Your task to perform on an android device: Go to sound settings Image 0: 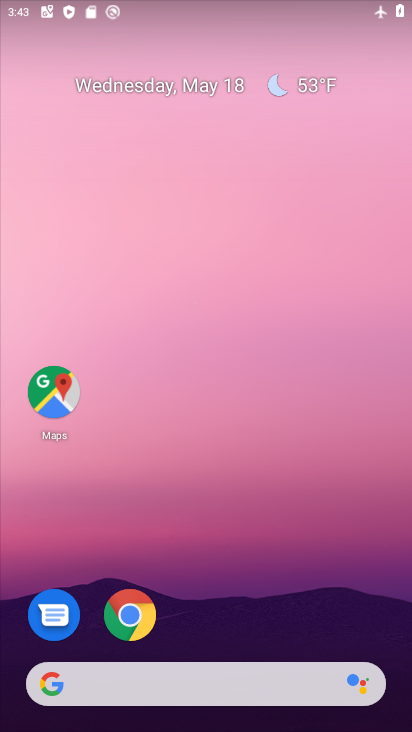
Step 0: drag from (283, 574) to (279, 103)
Your task to perform on an android device: Go to sound settings Image 1: 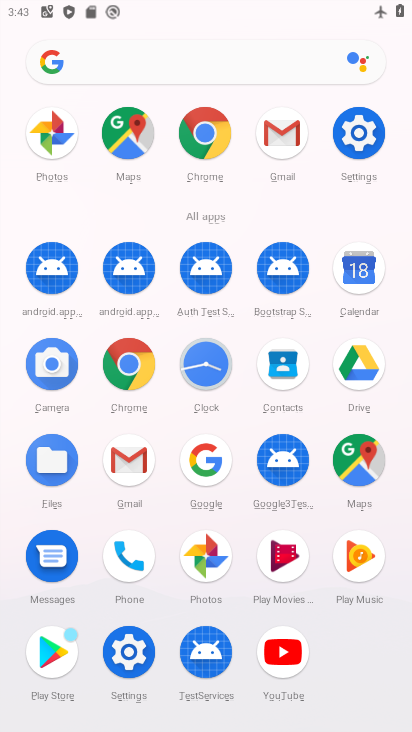
Step 1: click (364, 138)
Your task to perform on an android device: Go to sound settings Image 2: 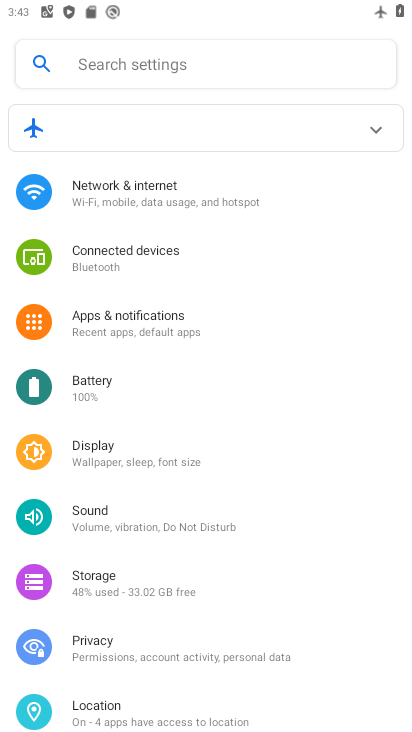
Step 2: click (153, 520)
Your task to perform on an android device: Go to sound settings Image 3: 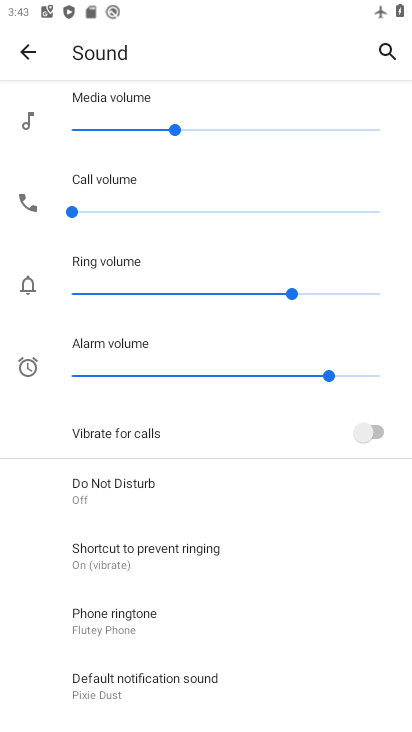
Step 3: task complete